Your task to perform on an android device: Go to wifi settings Image 0: 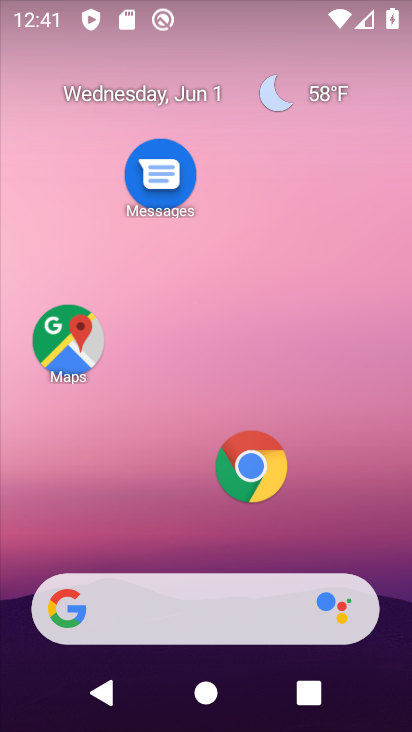
Step 0: drag from (158, 693) to (162, 98)
Your task to perform on an android device: Go to wifi settings Image 1: 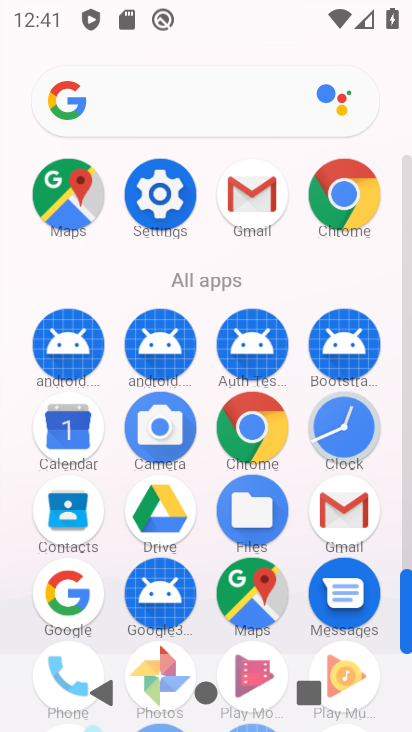
Step 1: click (160, 206)
Your task to perform on an android device: Go to wifi settings Image 2: 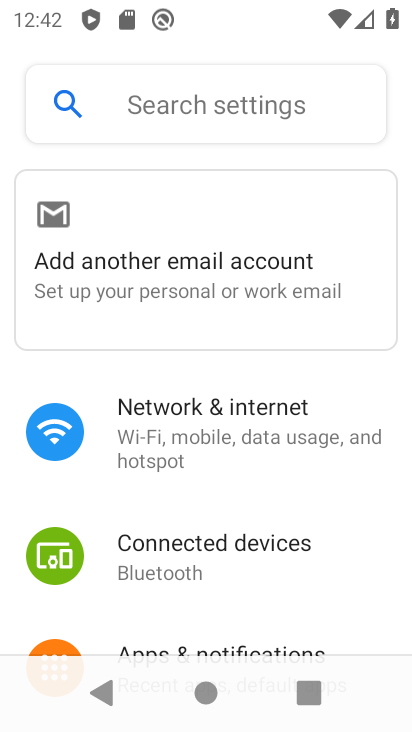
Step 2: click (278, 420)
Your task to perform on an android device: Go to wifi settings Image 3: 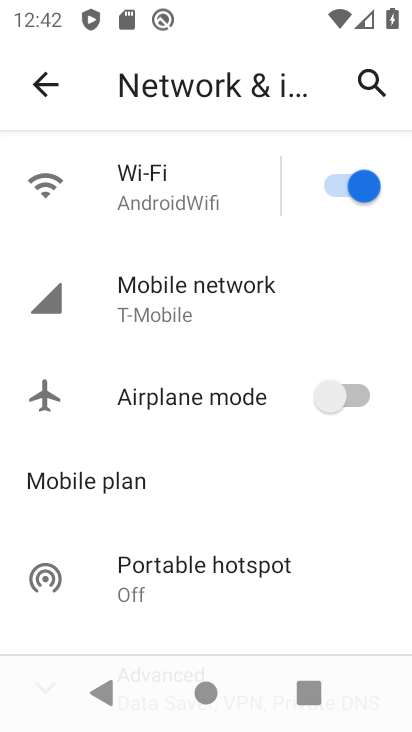
Step 3: click (173, 209)
Your task to perform on an android device: Go to wifi settings Image 4: 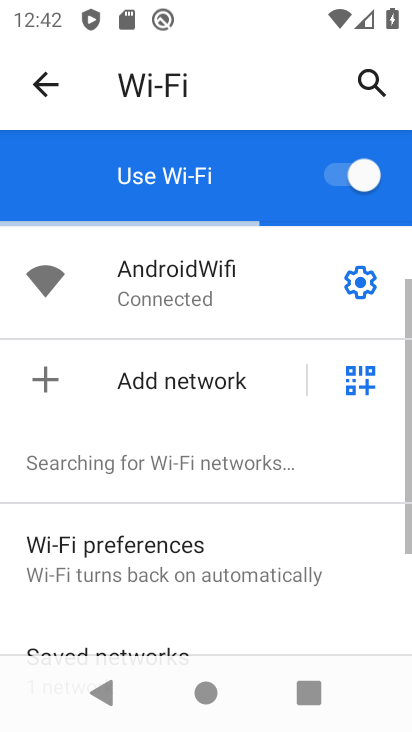
Step 4: task complete